Your task to perform on an android device: turn on location history Image 0: 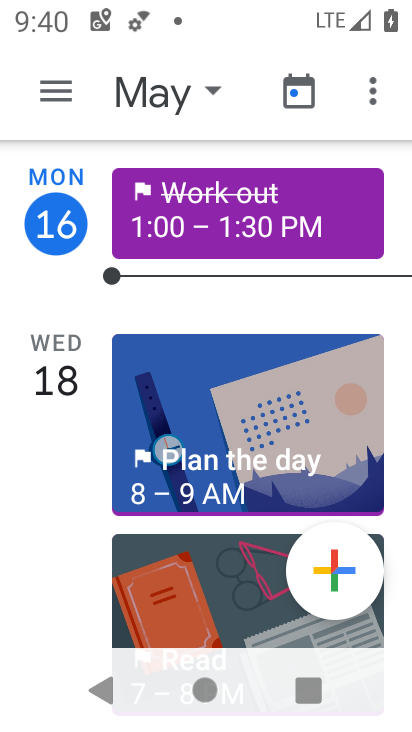
Step 0: press home button
Your task to perform on an android device: turn on location history Image 1: 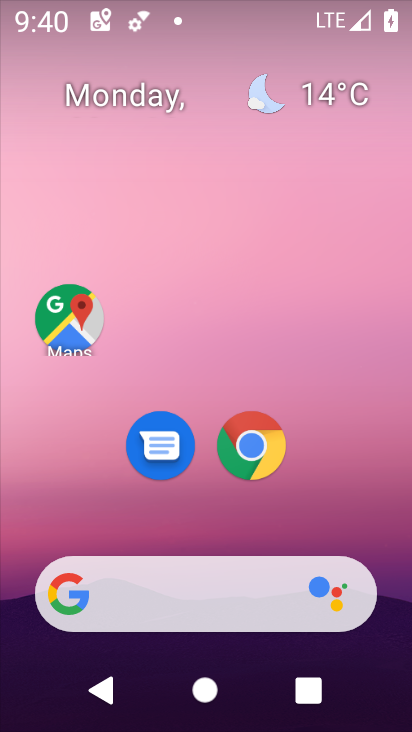
Step 1: drag from (212, 519) to (229, 110)
Your task to perform on an android device: turn on location history Image 2: 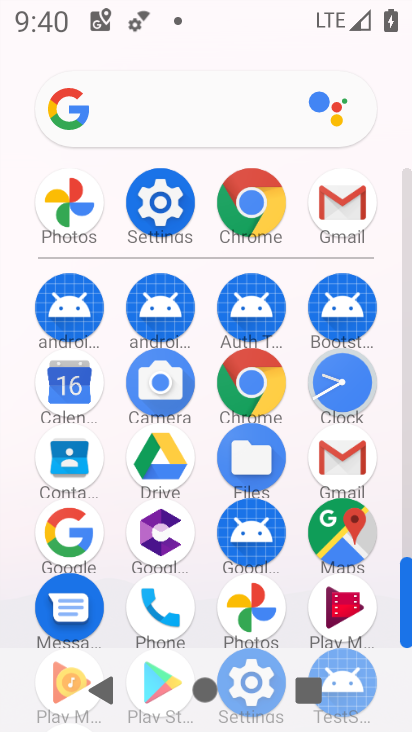
Step 2: click (153, 199)
Your task to perform on an android device: turn on location history Image 3: 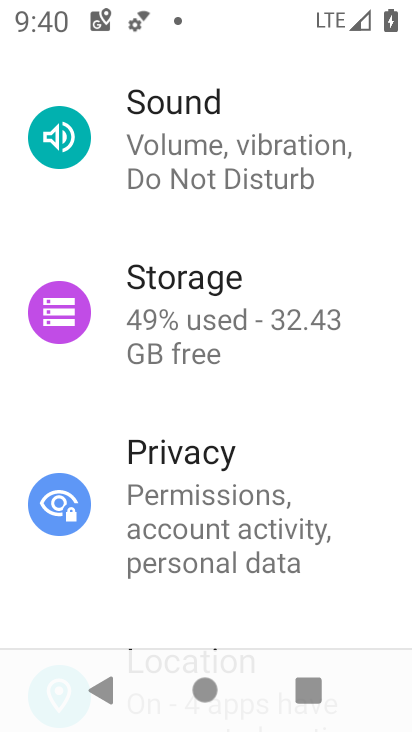
Step 3: drag from (197, 551) to (209, 137)
Your task to perform on an android device: turn on location history Image 4: 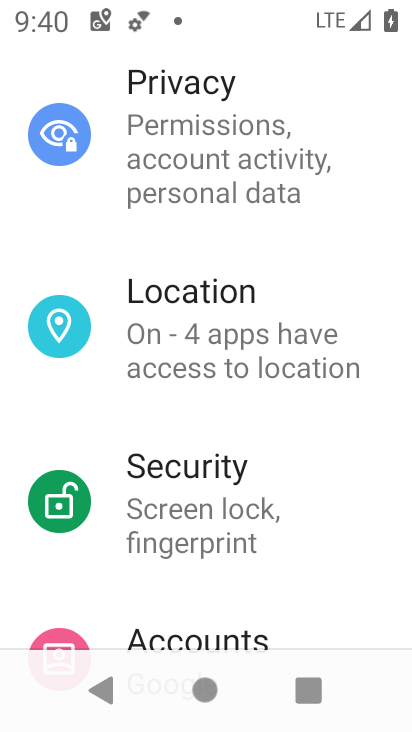
Step 4: click (107, 310)
Your task to perform on an android device: turn on location history Image 5: 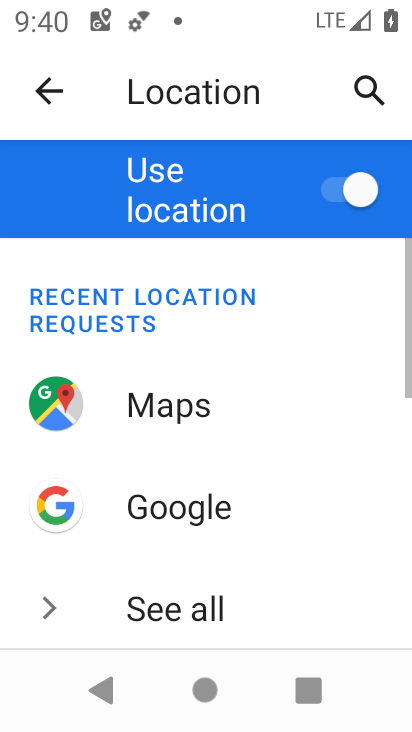
Step 5: drag from (249, 597) to (285, 163)
Your task to perform on an android device: turn on location history Image 6: 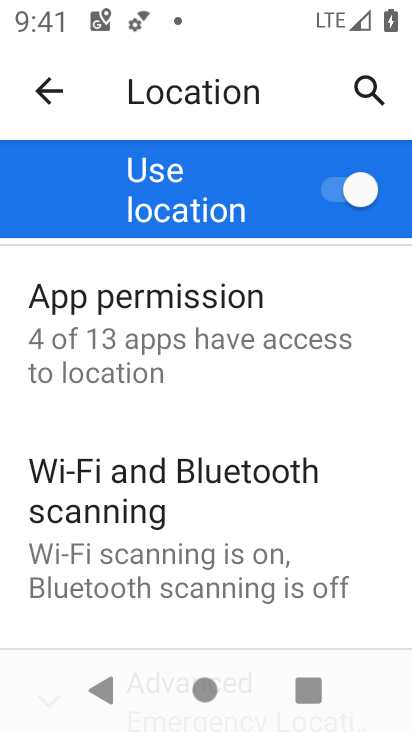
Step 6: drag from (212, 557) to (221, 151)
Your task to perform on an android device: turn on location history Image 7: 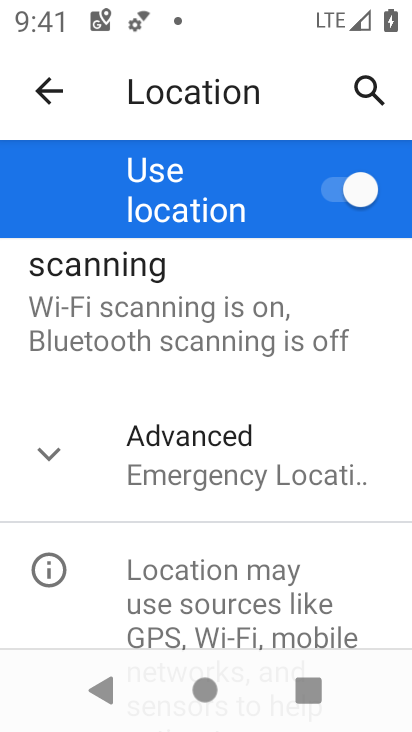
Step 7: click (50, 445)
Your task to perform on an android device: turn on location history Image 8: 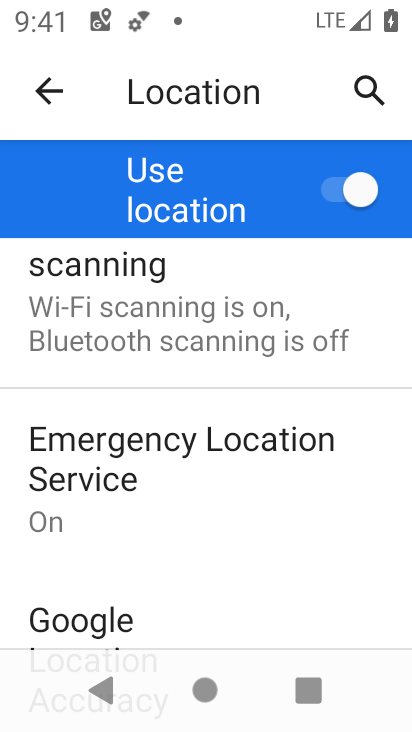
Step 8: drag from (203, 621) to (235, 260)
Your task to perform on an android device: turn on location history Image 9: 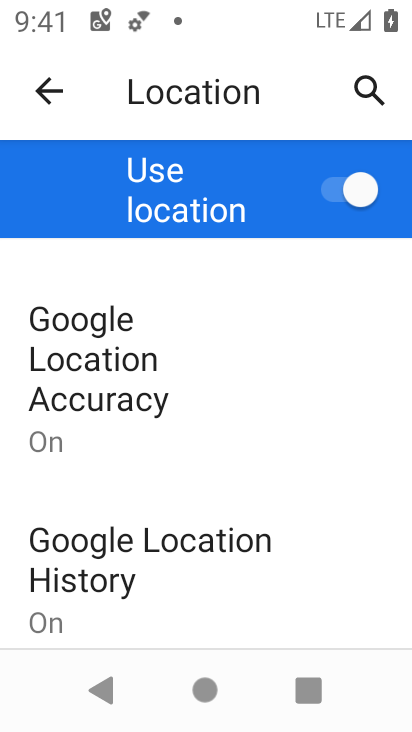
Step 9: click (167, 583)
Your task to perform on an android device: turn on location history Image 10: 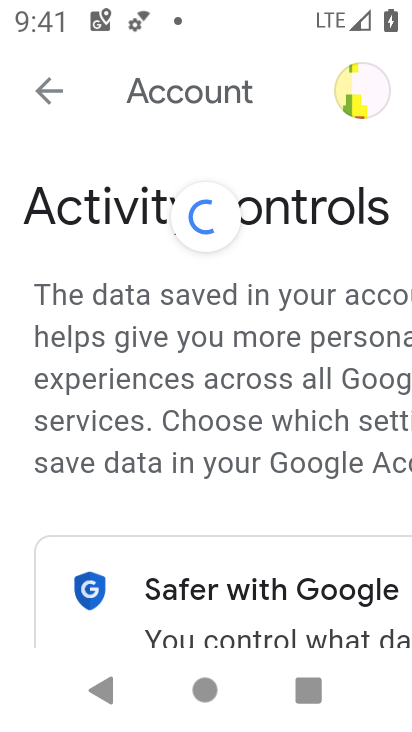
Step 10: task complete